Your task to perform on an android device: move a message to another label in the gmail app Image 0: 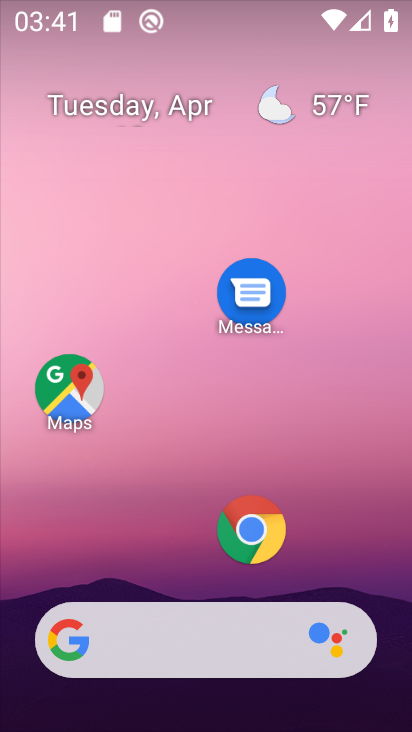
Step 0: drag from (189, 532) to (134, 186)
Your task to perform on an android device: move a message to another label in the gmail app Image 1: 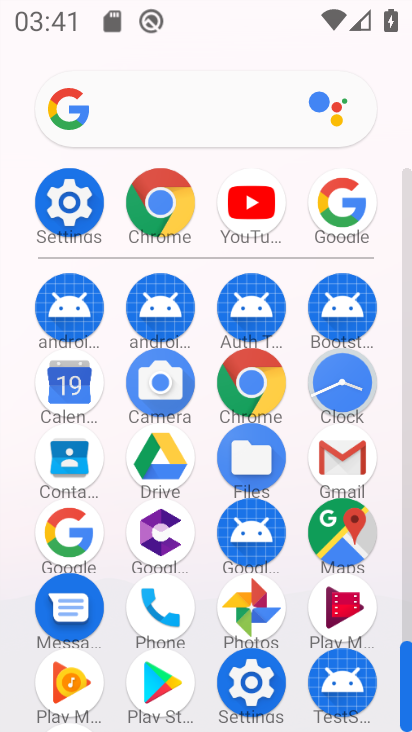
Step 1: click (337, 454)
Your task to perform on an android device: move a message to another label in the gmail app Image 2: 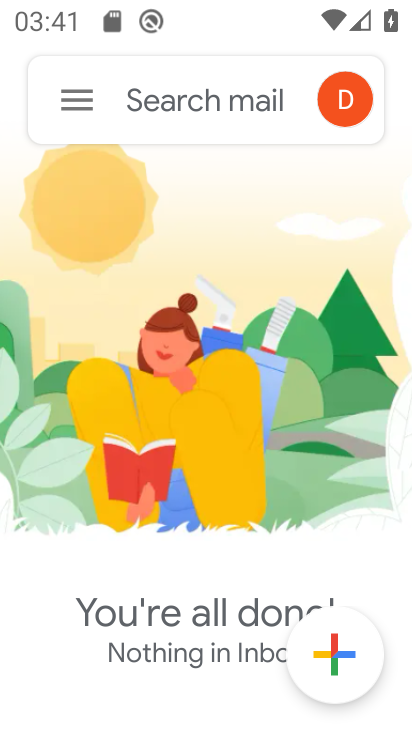
Step 2: click (63, 99)
Your task to perform on an android device: move a message to another label in the gmail app Image 3: 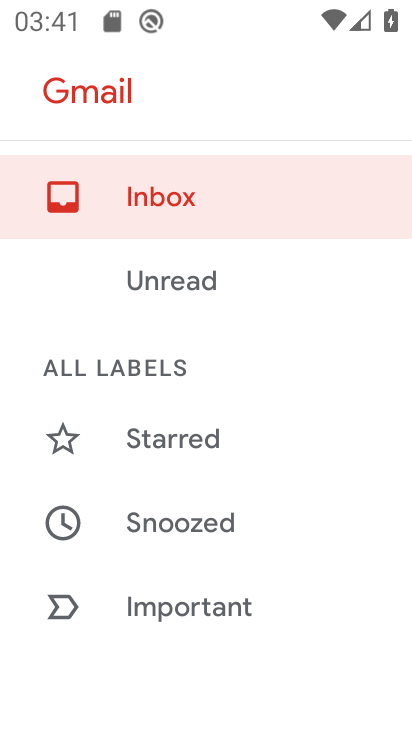
Step 3: drag from (182, 556) to (159, 273)
Your task to perform on an android device: move a message to another label in the gmail app Image 4: 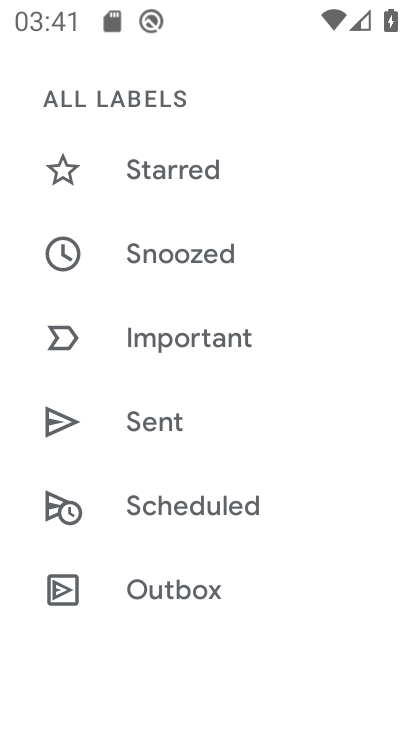
Step 4: drag from (236, 563) to (218, 292)
Your task to perform on an android device: move a message to another label in the gmail app Image 5: 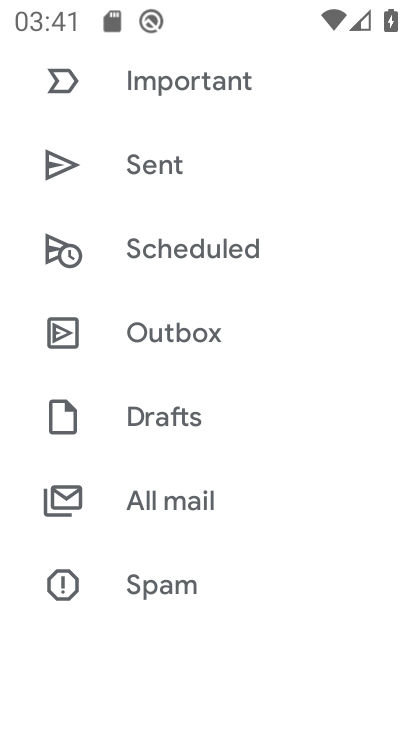
Step 5: click (159, 494)
Your task to perform on an android device: move a message to another label in the gmail app Image 6: 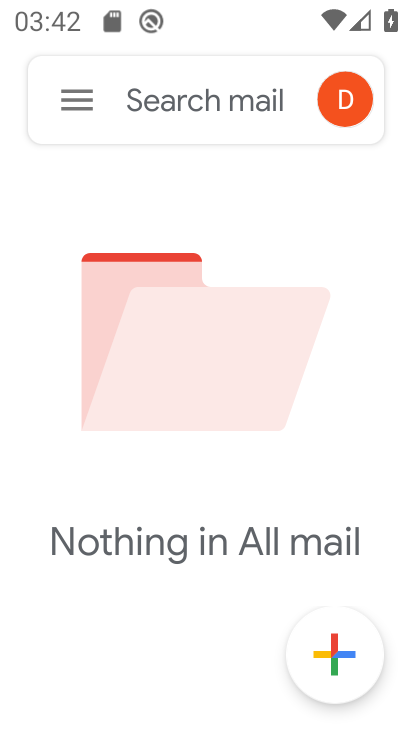
Step 6: task complete